Your task to perform on an android device: Empty the shopping cart on newegg.com. Search for "bose soundlink" on newegg.com, select the first entry, and add it to the cart. Image 0: 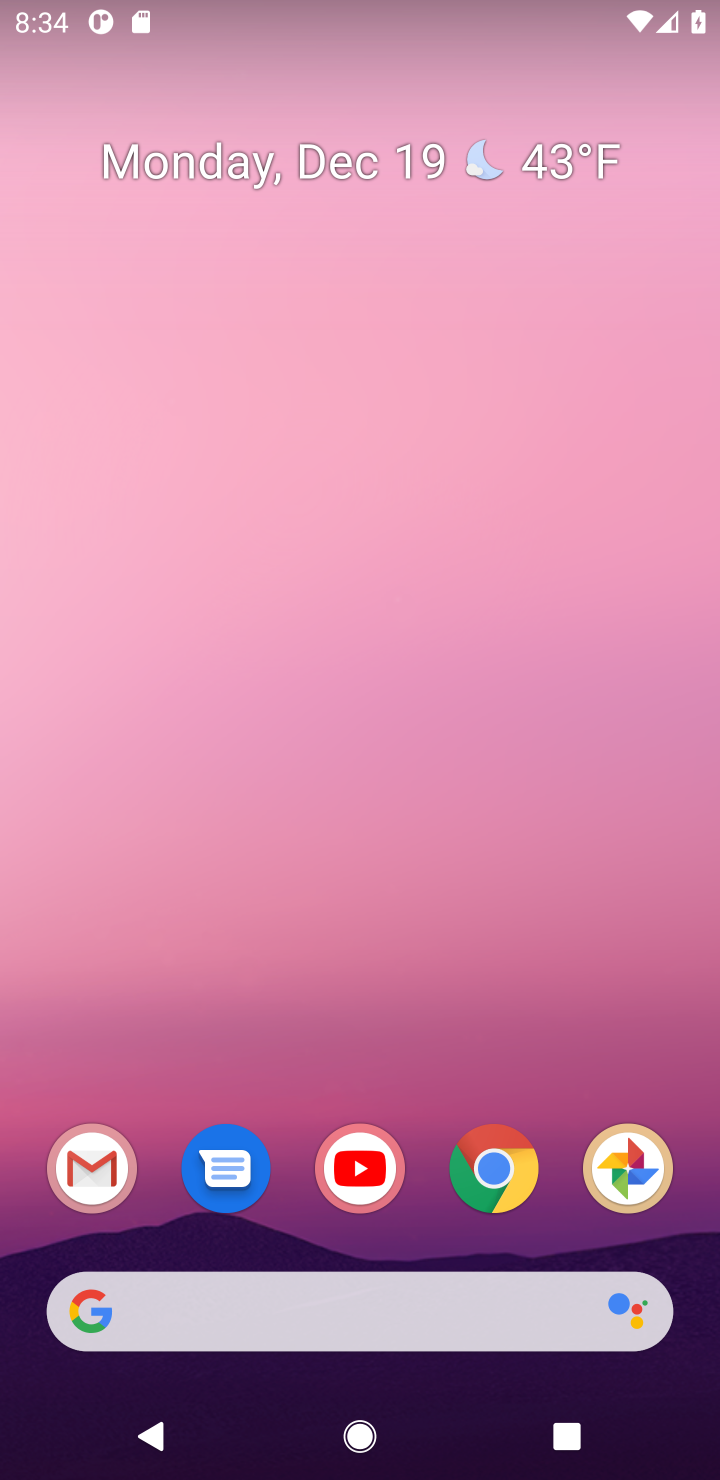
Step 0: click (486, 1171)
Your task to perform on an android device: Empty the shopping cart on newegg.com. Search for "bose soundlink" on newegg.com, select the first entry, and add it to the cart. Image 1: 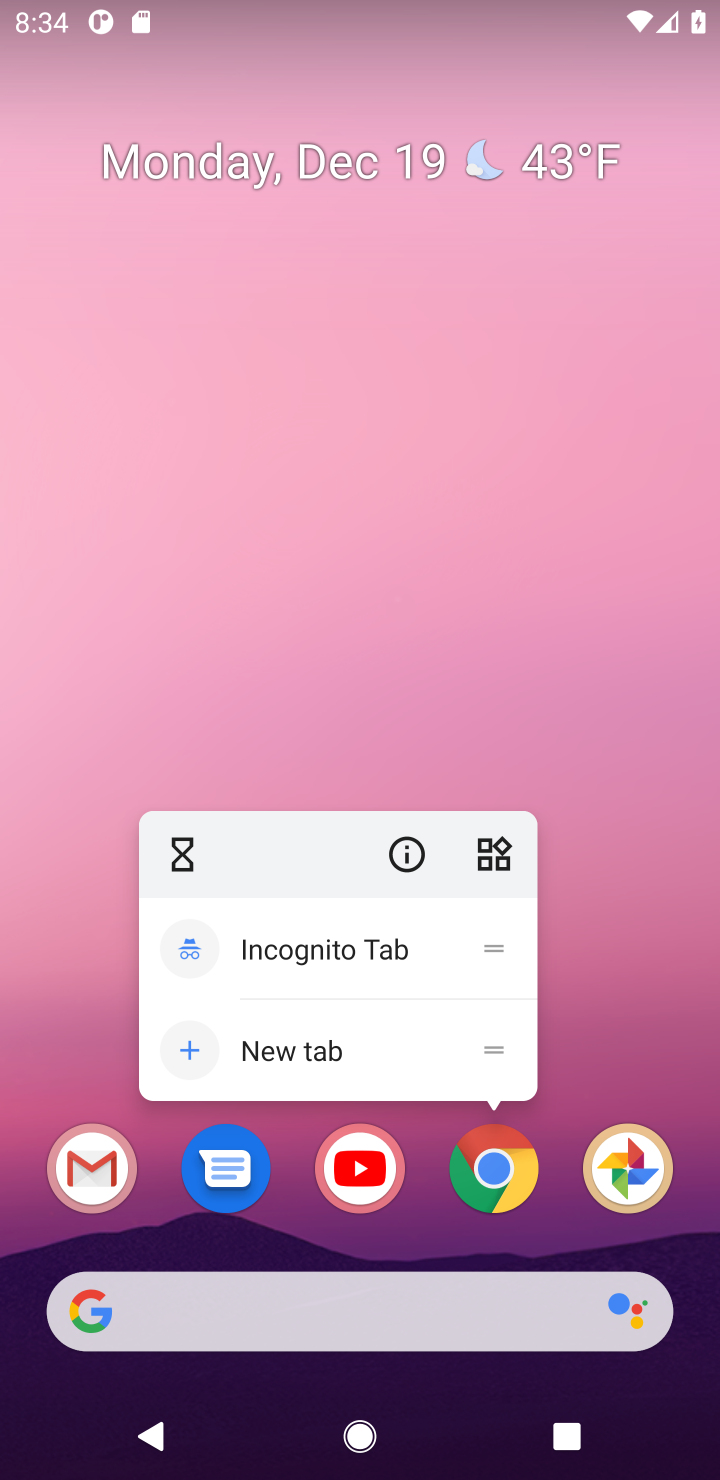
Step 1: click (486, 1171)
Your task to perform on an android device: Empty the shopping cart on newegg.com. Search for "bose soundlink" on newegg.com, select the first entry, and add it to the cart. Image 2: 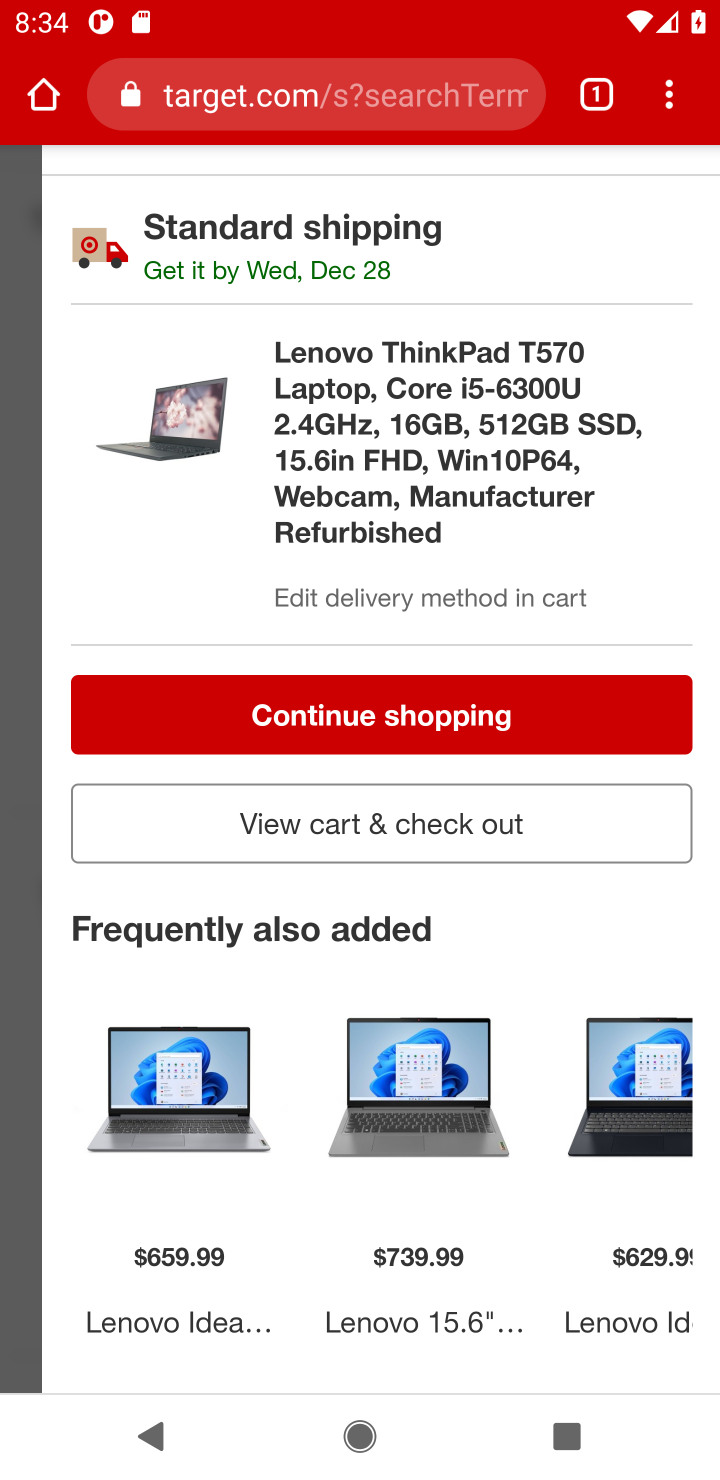
Step 2: click (222, 105)
Your task to perform on an android device: Empty the shopping cart on newegg.com. Search for "bose soundlink" on newegg.com, select the first entry, and add it to the cart. Image 3: 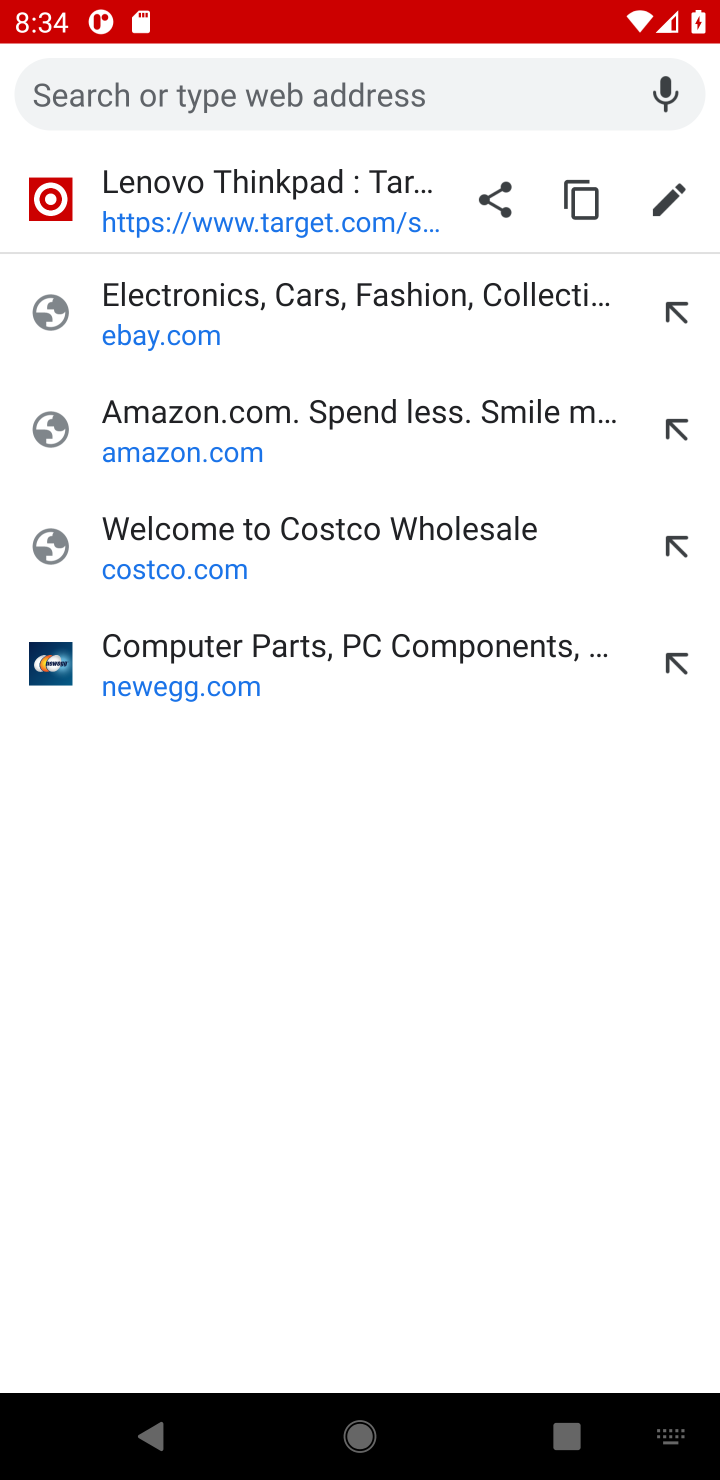
Step 3: click (190, 674)
Your task to perform on an android device: Empty the shopping cart on newegg.com. Search for "bose soundlink" on newegg.com, select the first entry, and add it to the cart. Image 4: 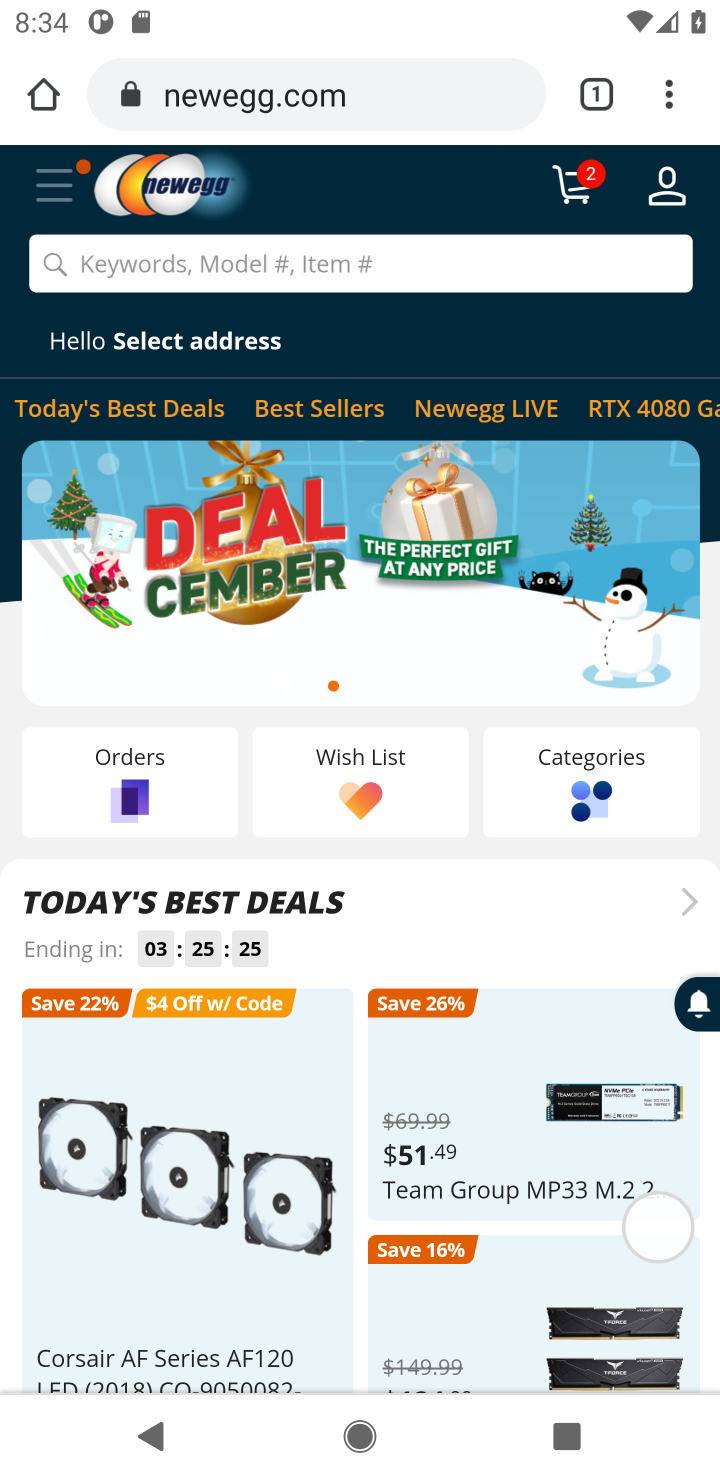
Step 4: click (574, 188)
Your task to perform on an android device: Empty the shopping cart on newegg.com. Search for "bose soundlink" on newegg.com, select the first entry, and add it to the cart. Image 5: 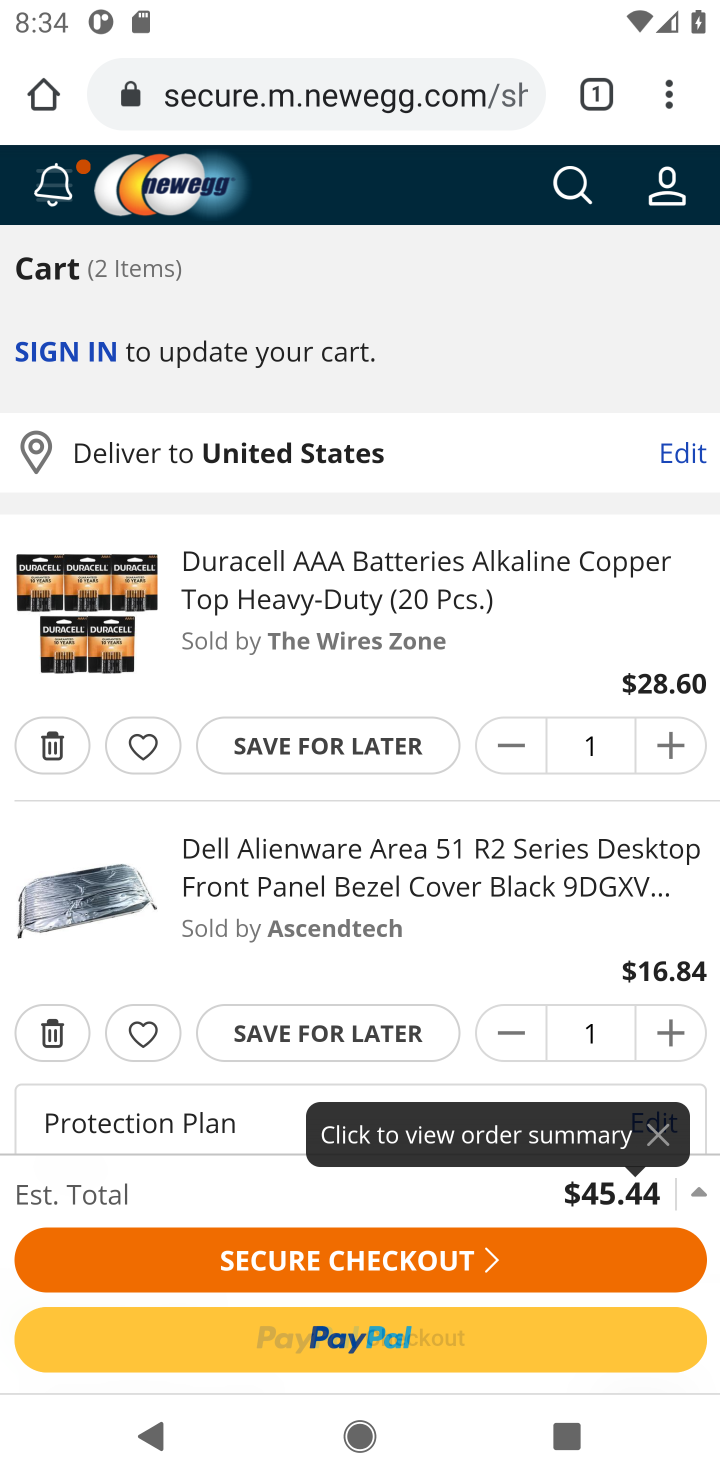
Step 5: click (52, 743)
Your task to perform on an android device: Empty the shopping cart on newegg.com. Search for "bose soundlink" on newegg.com, select the first entry, and add it to the cart. Image 6: 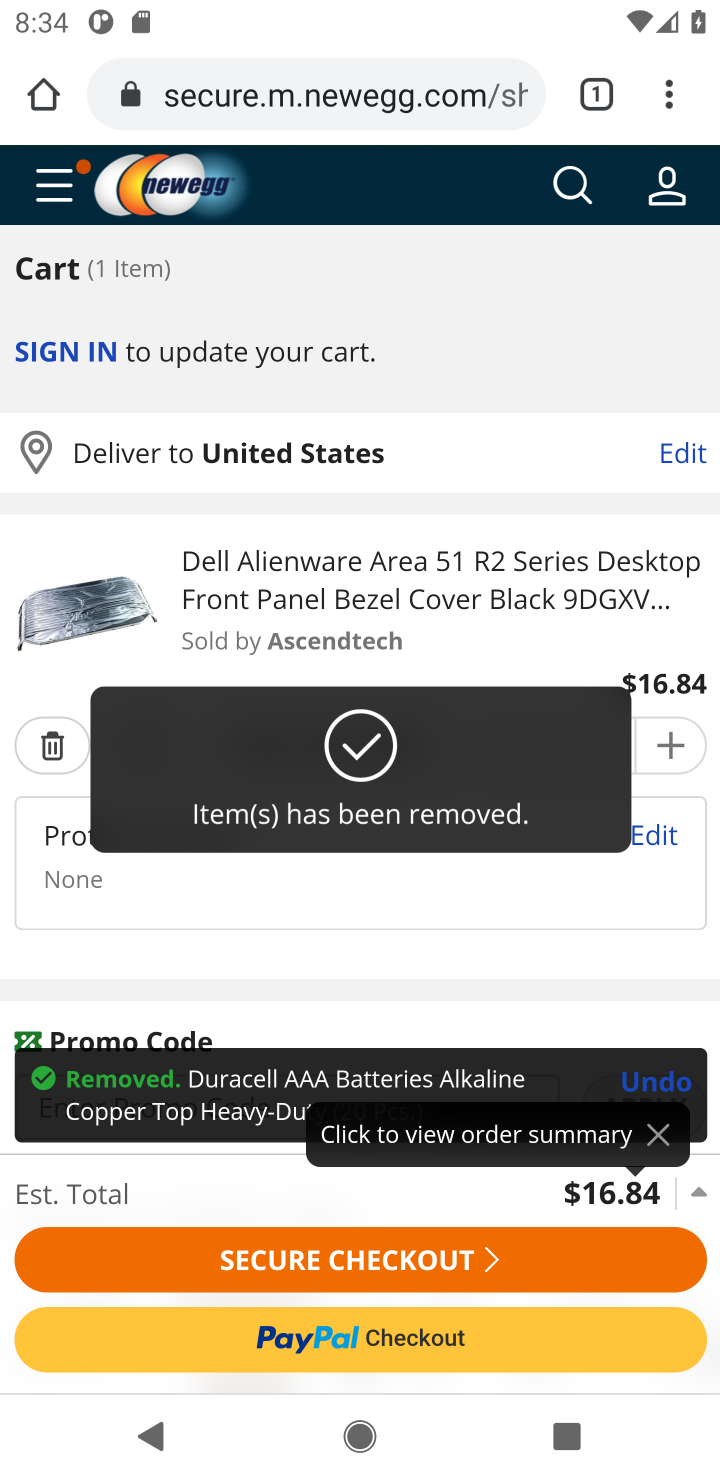
Step 6: click (52, 743)
Your task to perform on an android device: Empty the shopping cart on newegg.com. Search for "bose soundlink" on newegg.com, select the first entry, and add it to the cart. Image 7: 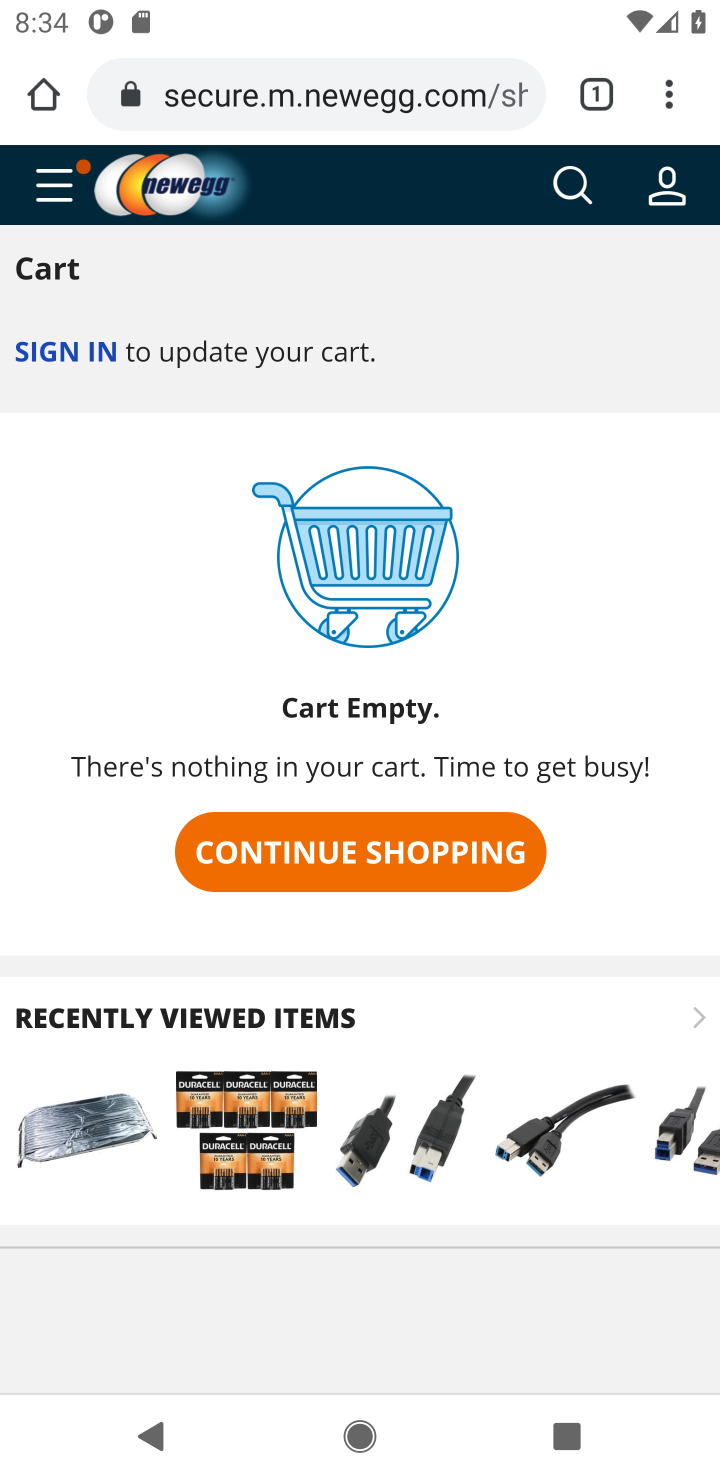
Step 7: click (584, 196)
Your task to perform on an android device: Empty the shopping cart on newegg.com. Search for "bose soundlink" on newegg.com, select the first entry, and add it to the cart. Image 8: 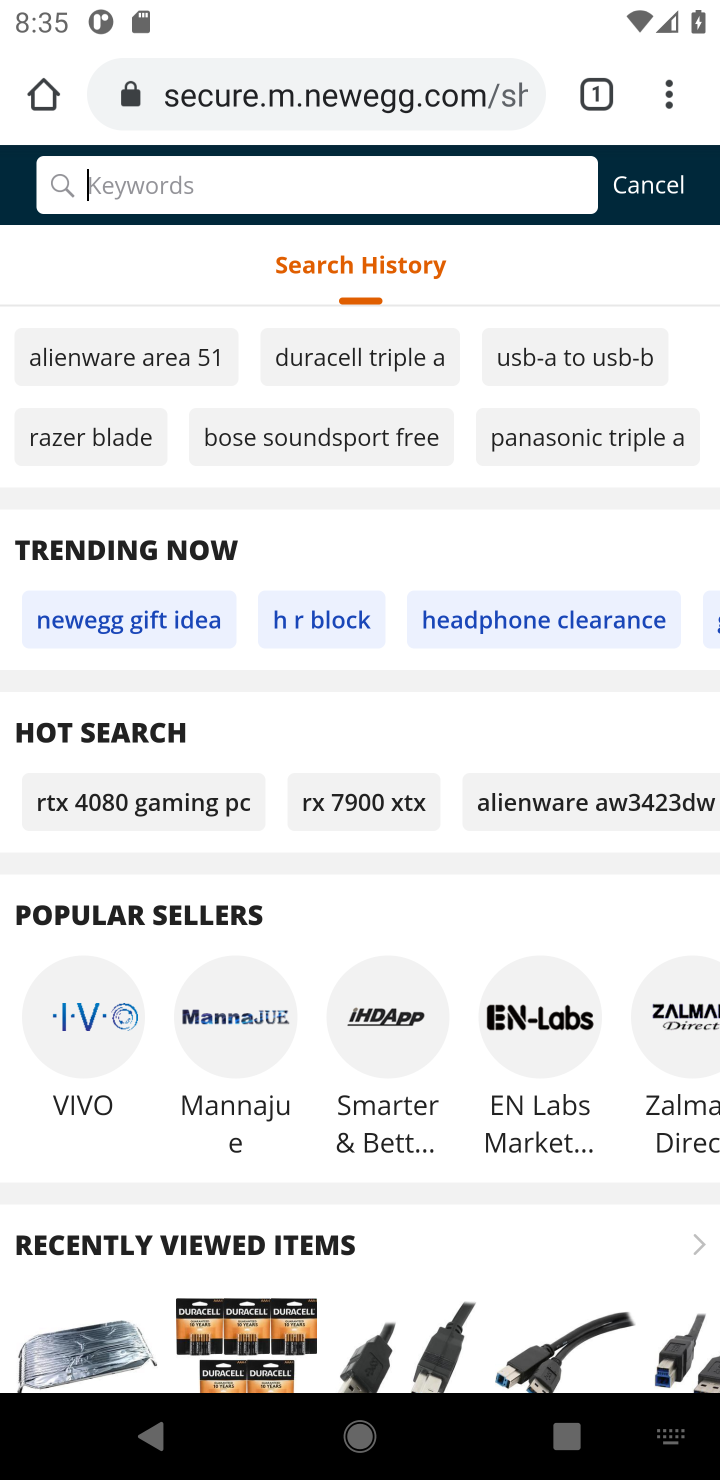
Step 8: type "bose soundlink"
Your task to perform on an android device: Empty the shopping cart on newegg.com. Search for "bose soundlink" on newegg.com, select the first entry, and add it to the cart. Image 9: 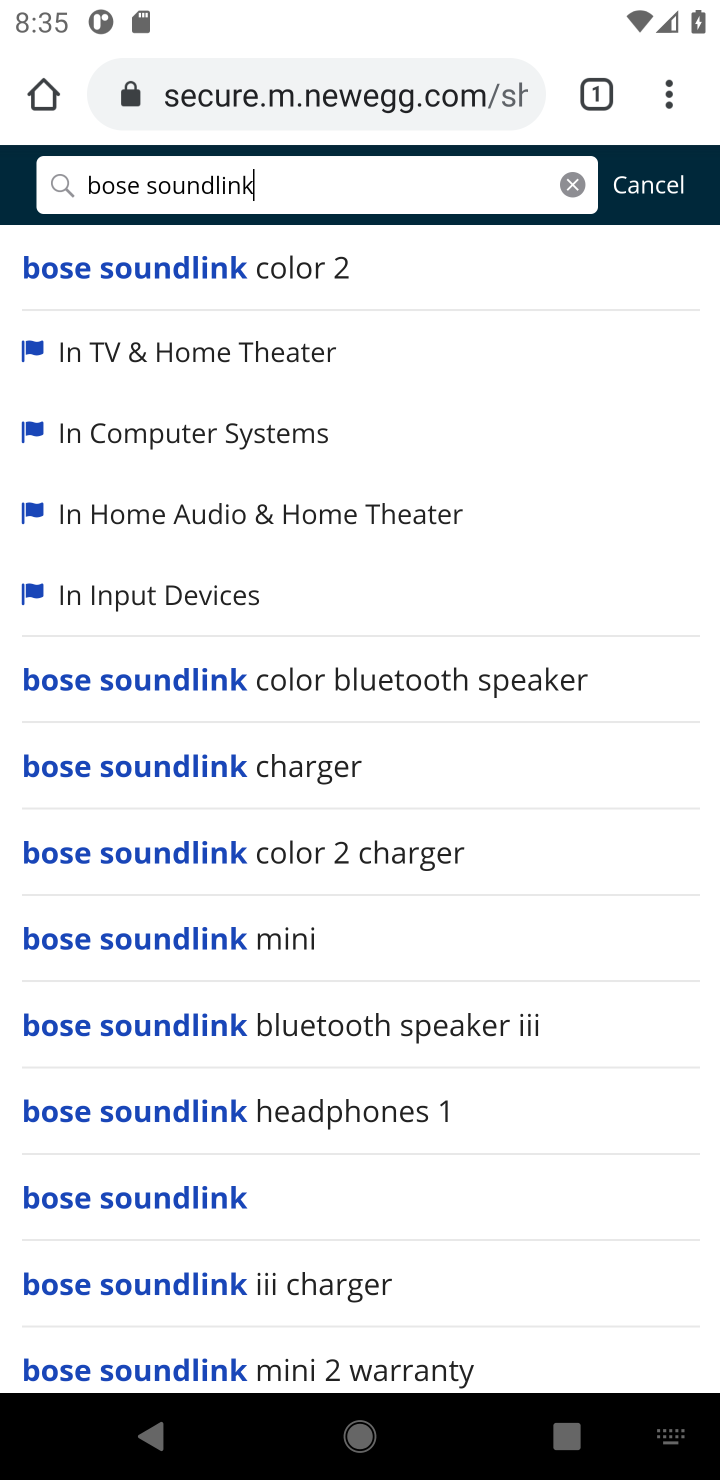
Step 9: click (167, 1207)
Your task to perform on an android device: Empty the shopping cart on newegg.com. Search for "bose soundlink" on newegg.com, select the first entry, and add it to the cart. Image 10: 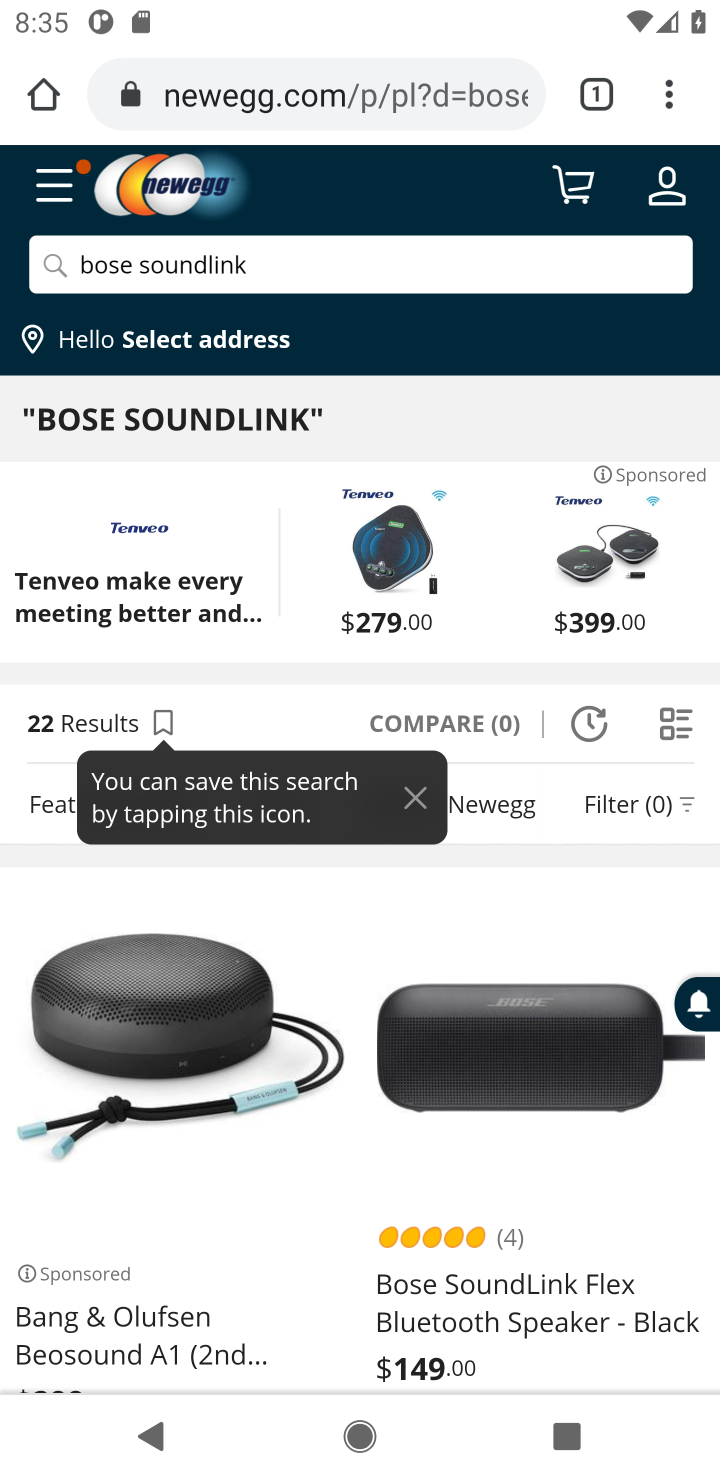
Step 10: drag from (203, 1179) to (175, 915)
Your task to perform on an android device: Empty the shopping cart on newegg.com. Search for "bose soundlink" on newegg.com, select the first entry, and add it to the cart. Image 11: 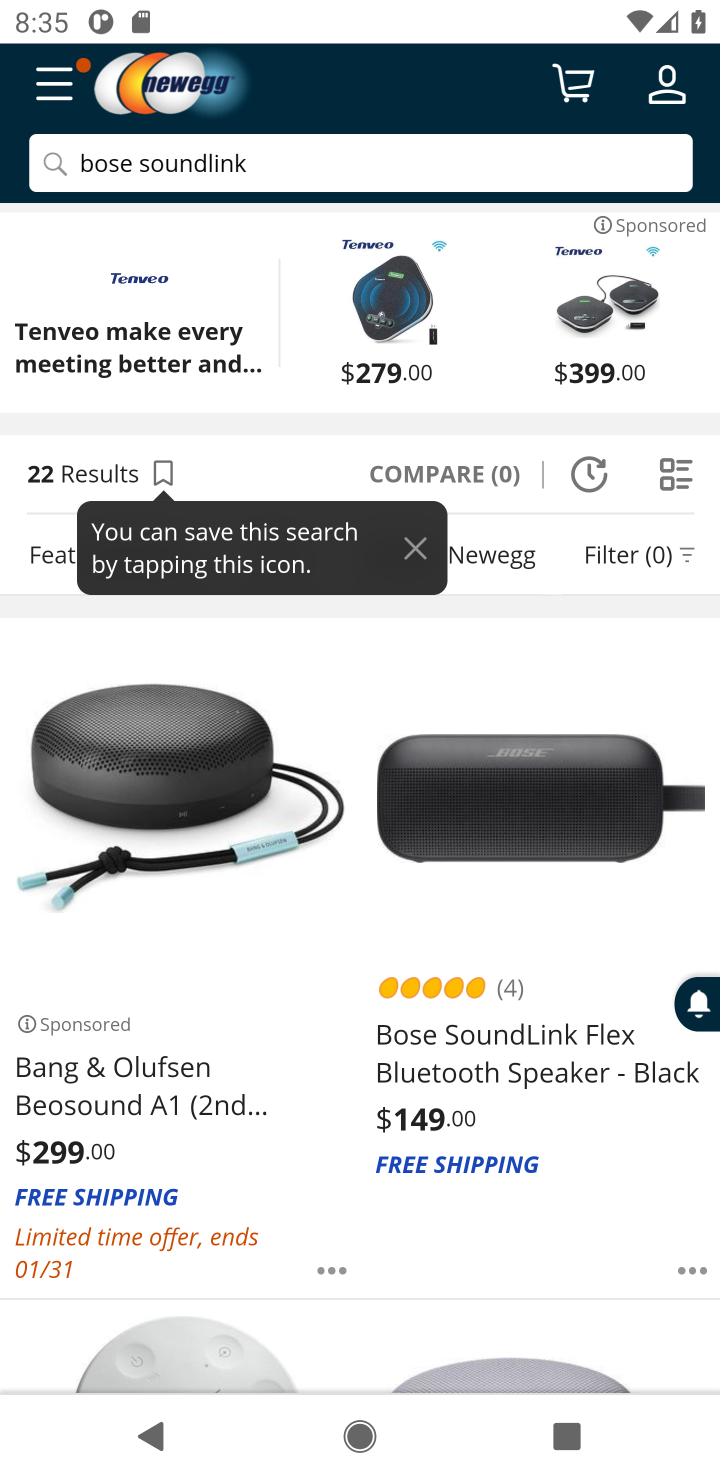
Step 11: click (87, 1119)
Your task to perform on an android device: Empty the shopping cart on newegg.com. Search for "bose soundlink" on newegg.com, select the first entry, and add it to the cart. Image 12: 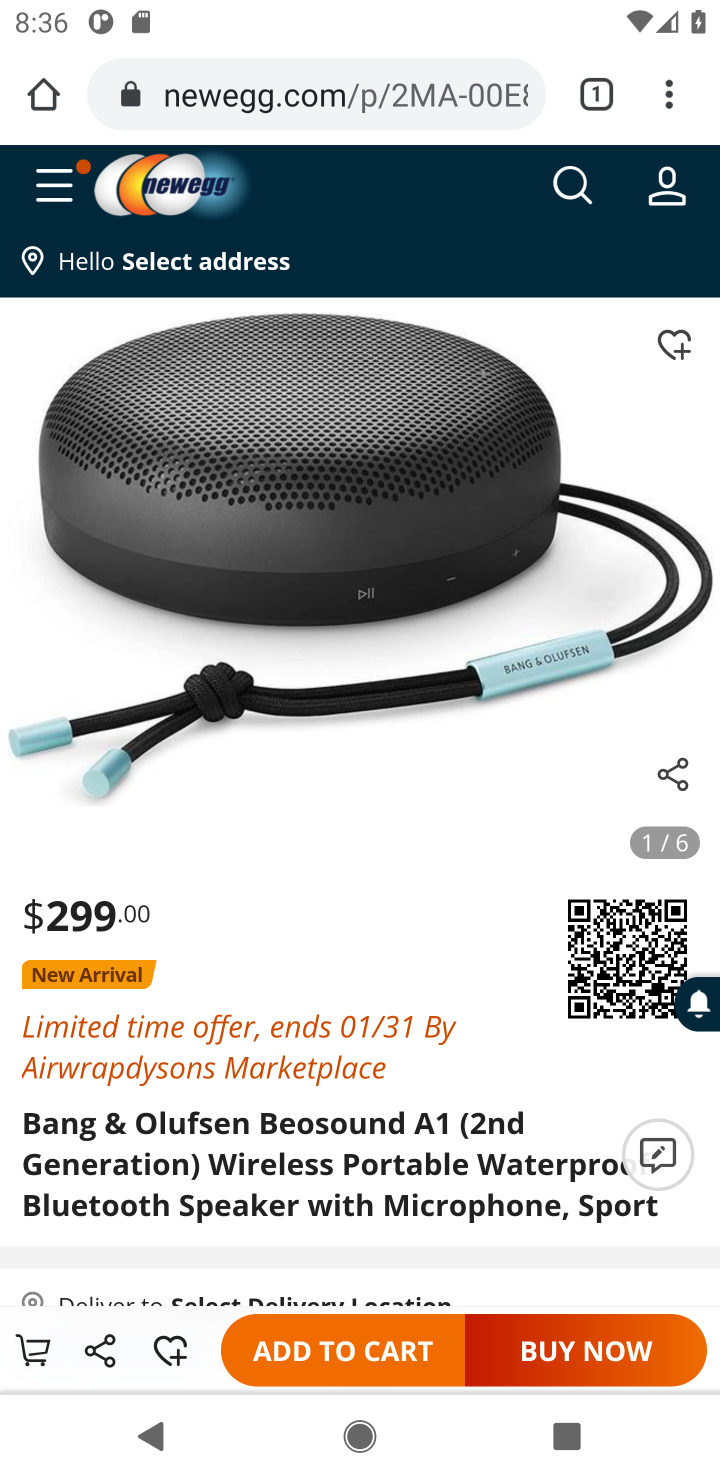
Step 12: task complete